Your task to perform on an android device: Search for "asus zenbook" on ebay, select the first entry, add it to the cart, then select checkout. Image 0: 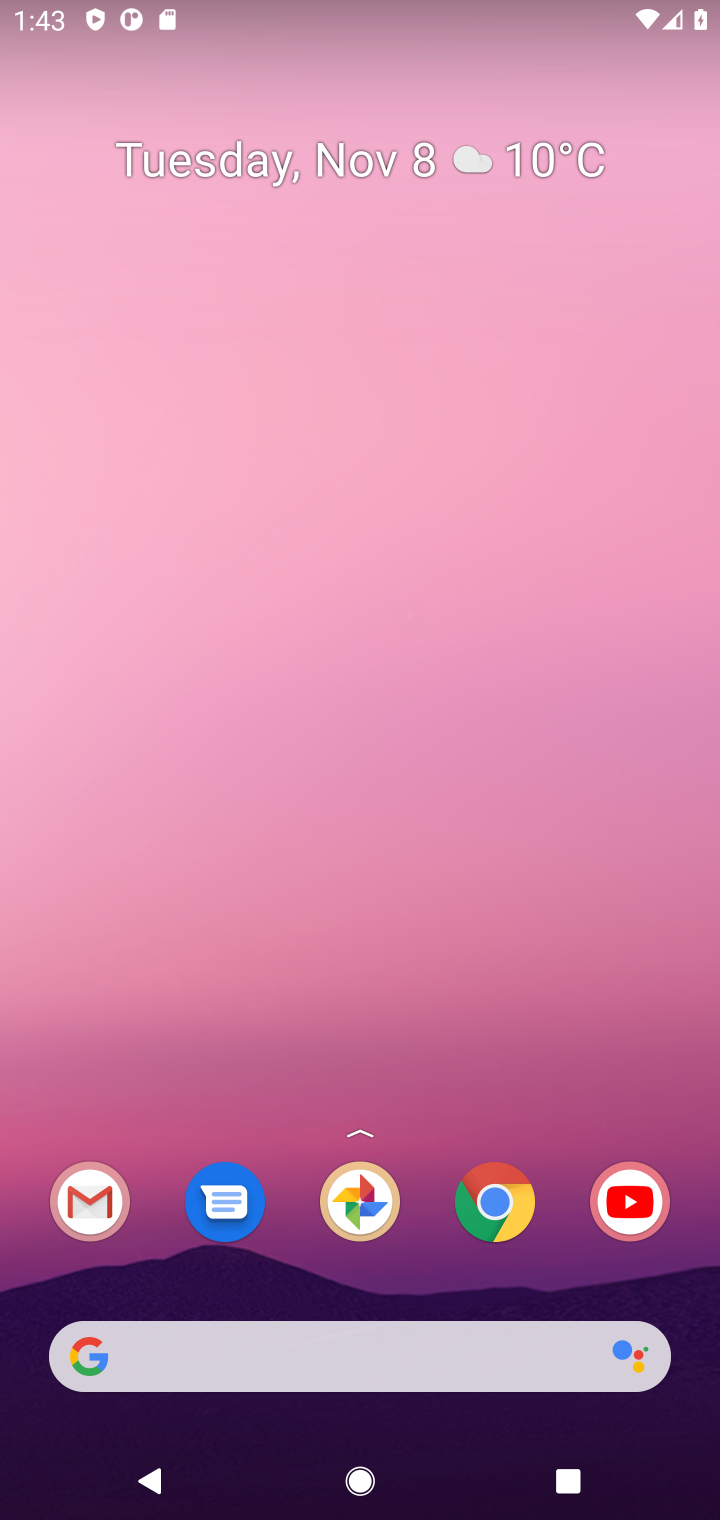
Step 0: drag from (326, 1310) to (383, 789)
Your task to perform on an android device: Search for "asus zenbook" on ebay, select the first entry, add it to the cart, then select checkout. Image 1: 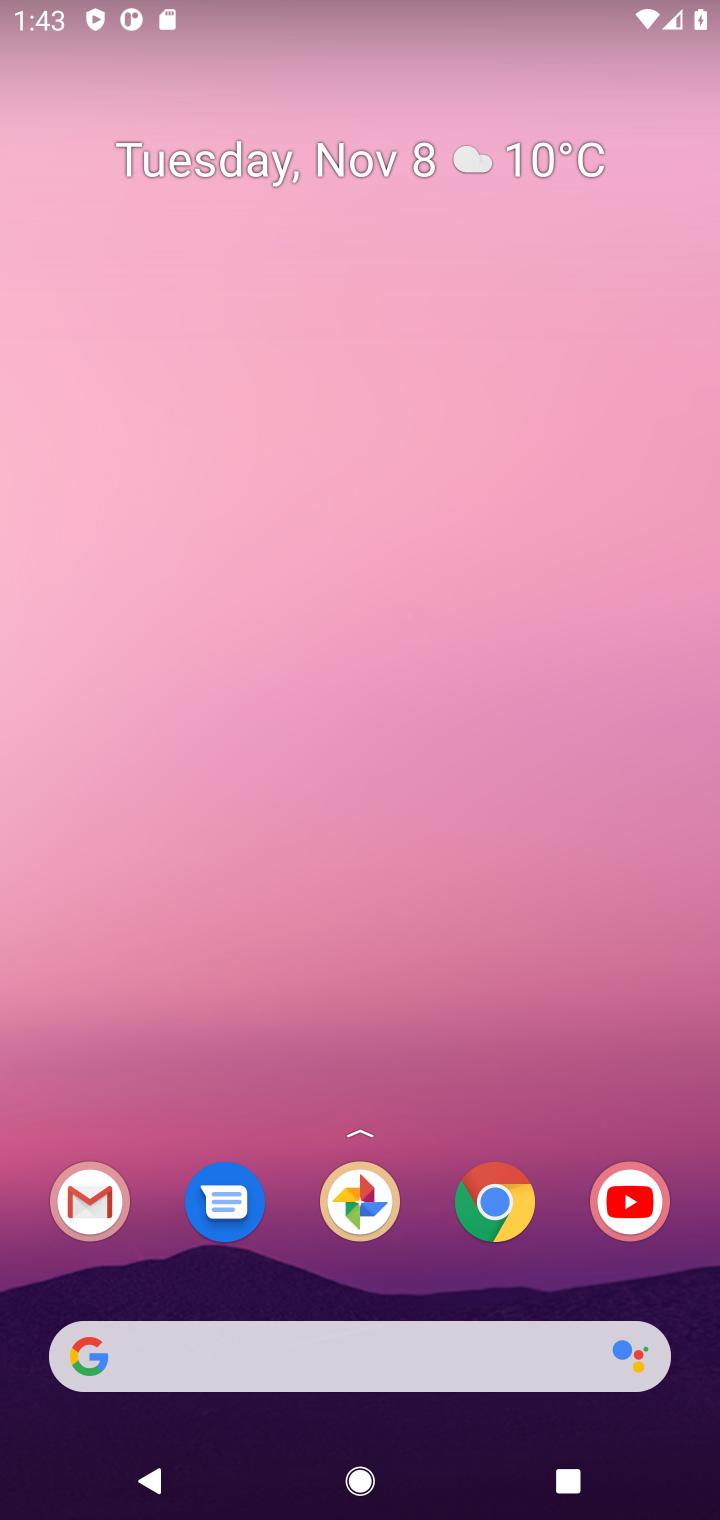
Step 1: drag from (324, 1262) to (381, 611)
Your task to perform on an android device: Search for "asus zenbook" on ebay, select the first entry, add it to the cart, then select checkout. Image 2: 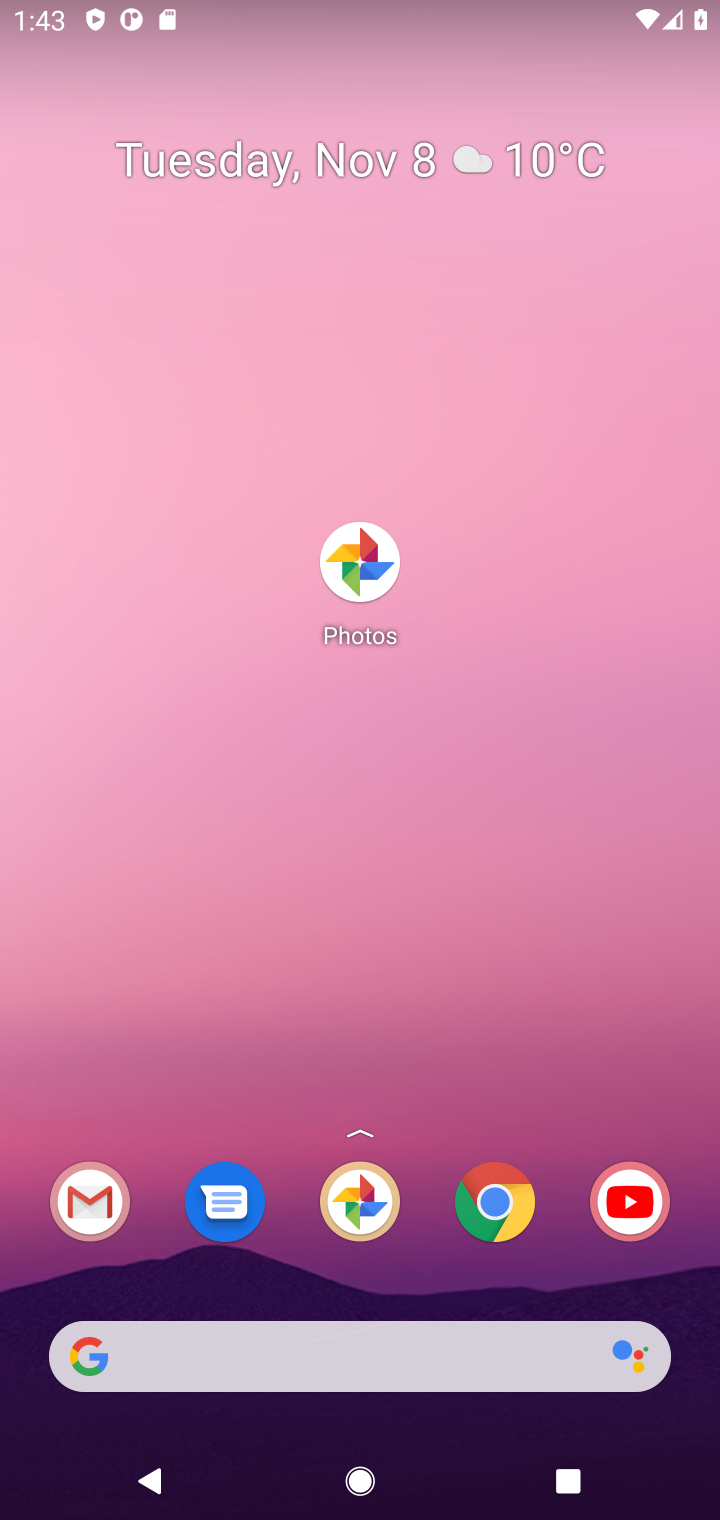
Step 2: drag from (289, 1302) to (289, 701)
Your task to perform on an android device: Search for "asus zenbook" on ebay, select the first entry, add it to the cart, then select checkout. Image 3: 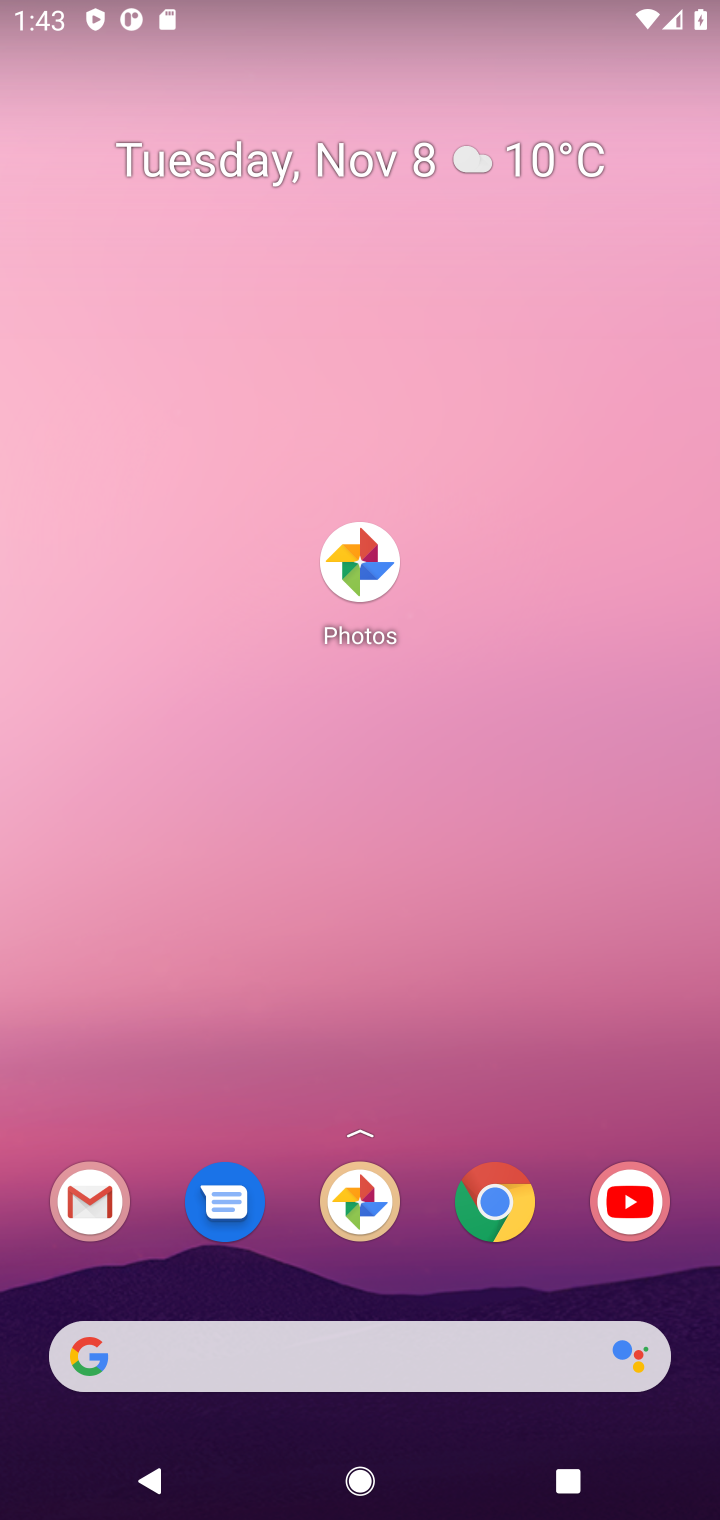
Step 3: drag from (290, 1272) to (214, 453)
Your task to perform on an android device: Search for "asus zenbook" on ebay, select the first entry, add it to the cart, then select checkout. Image 4: 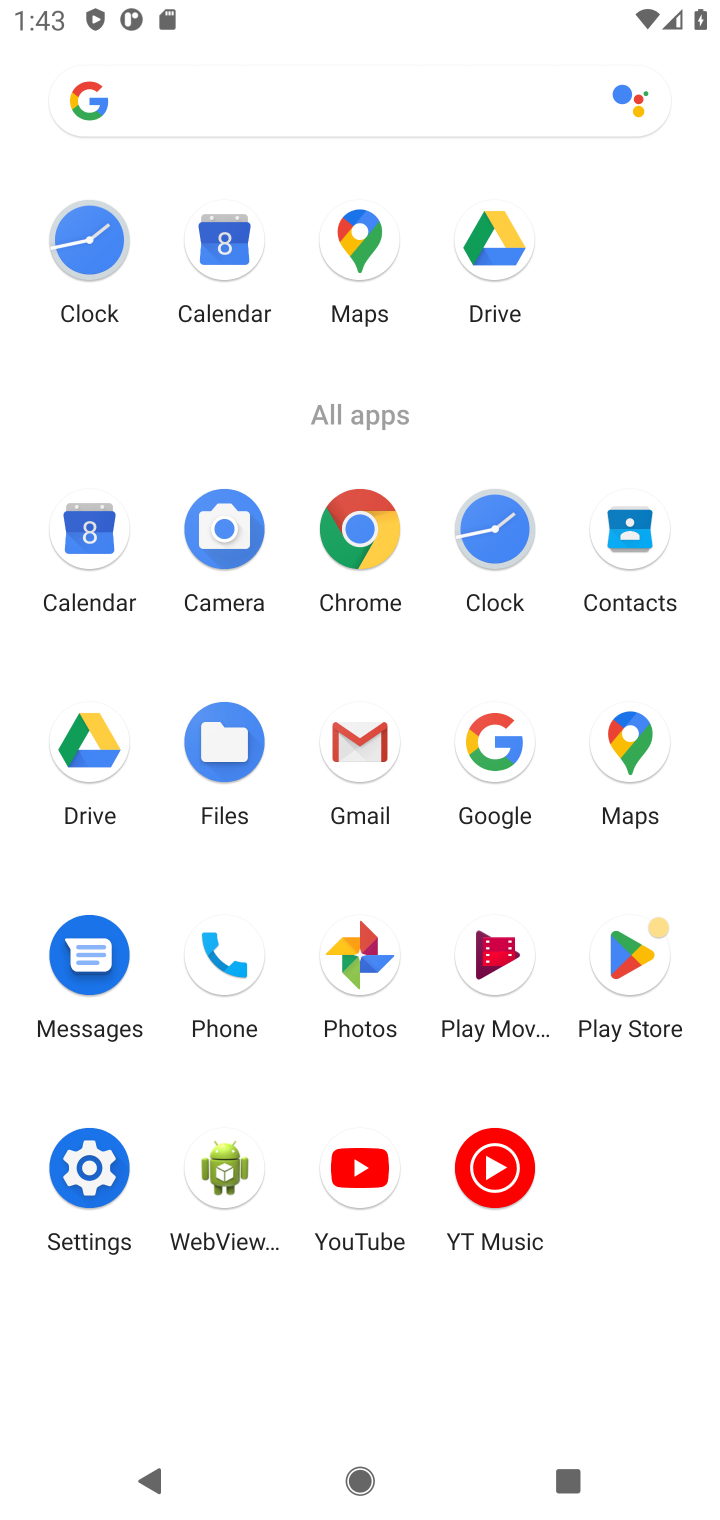
Step 4: click (480, 775)
Your task to perform on an android device: Search for "asus zenbook" on ebay, select the first entry, add it to the cart, then select checkout. Image 5: 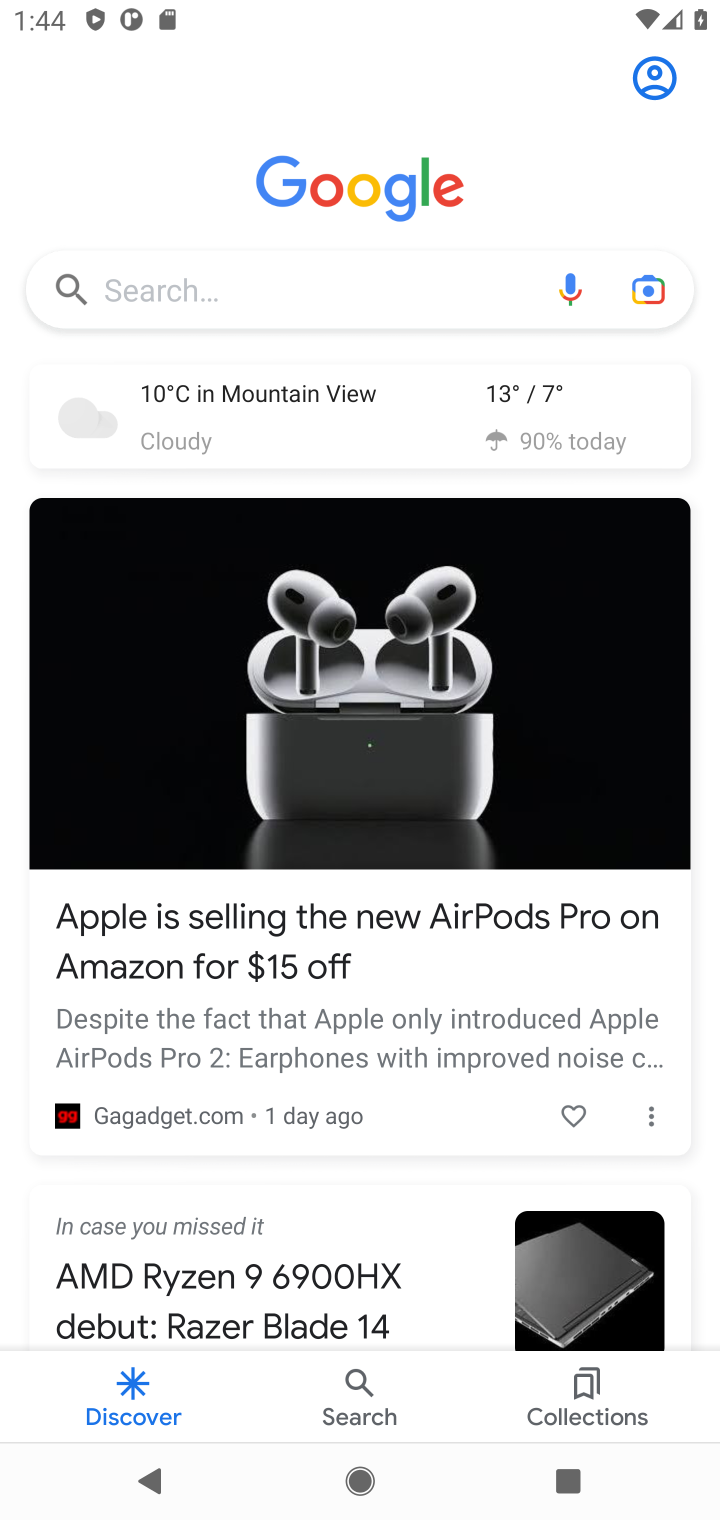
Step 5: click (296, 313)
Your task to perform on an android device: Search for "asus zenbook" on ebay, select the first entry, add it to the cart, then select checkout. Image 6: 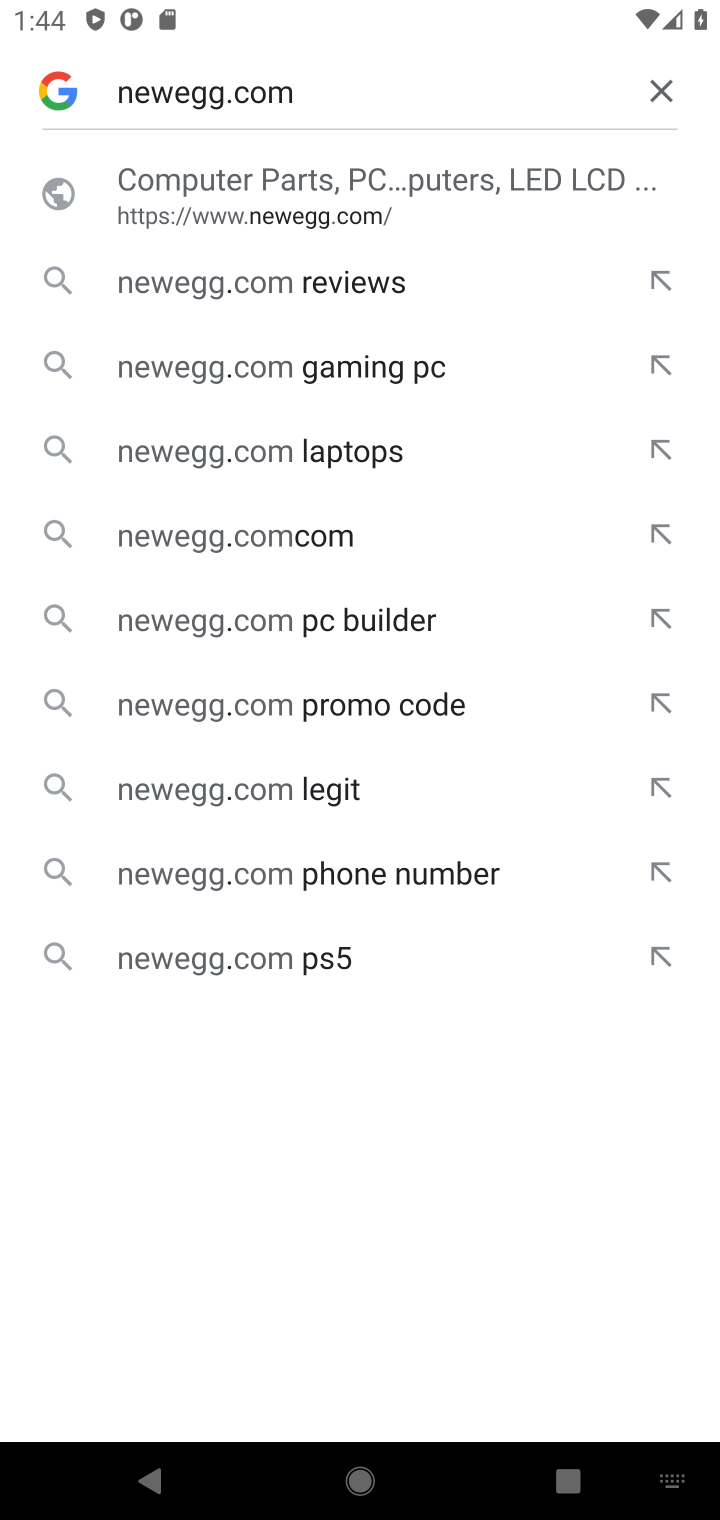
Step 6: click (664, 94)
Your task to perform on an android device: Search for "asus zenbook" on ebay, select the first entry, add it to the cart, then select checkout. Image 7: 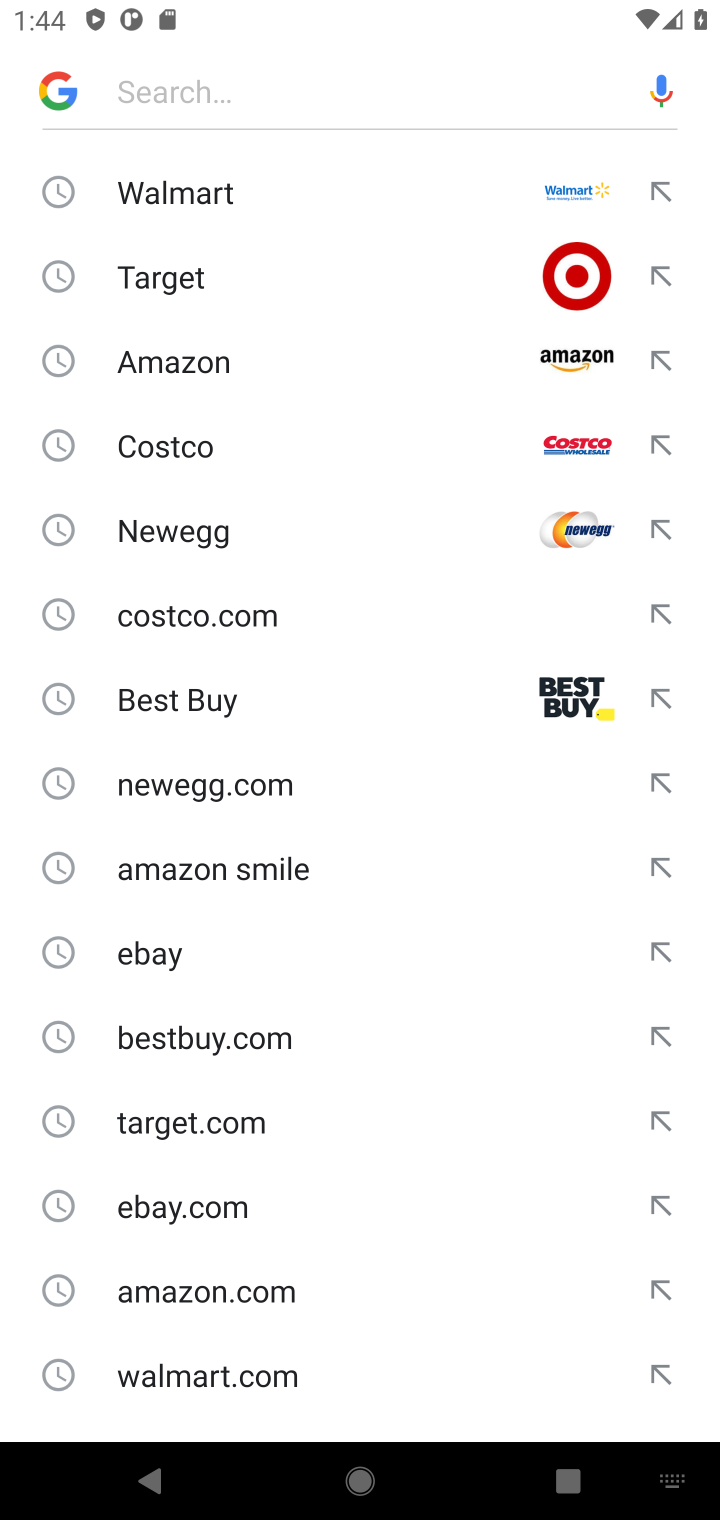
Step 7: type "ebay"
Your task to perform on an android device: Search for "asus zenbook" on ebay, select the first entry, add it to the cart, then select checkout. Image 8: 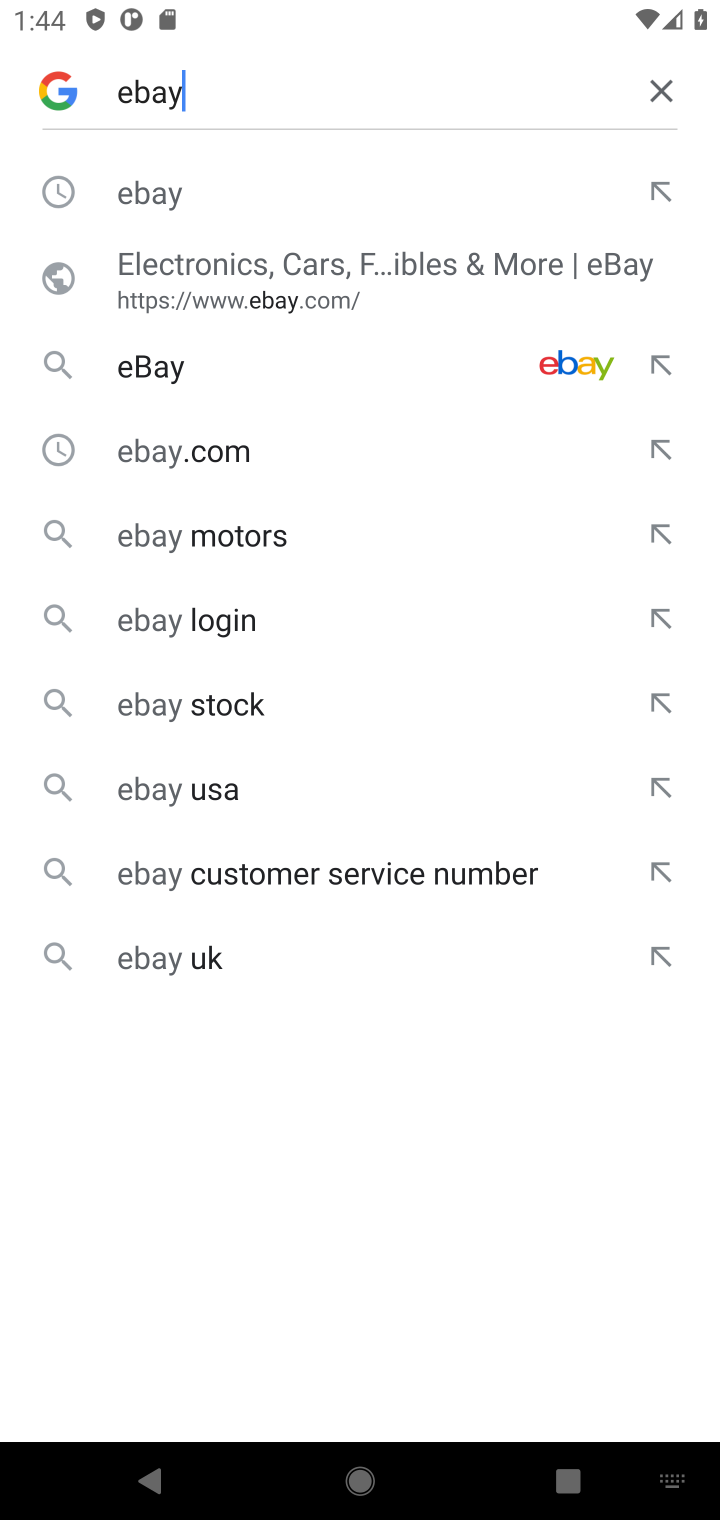
Step 8: click (115, 180)
Your task to perform on an android device: Search for "asus zenbook" on ebay, select the first entry, add it to the cart, then select checkout. Image 9: 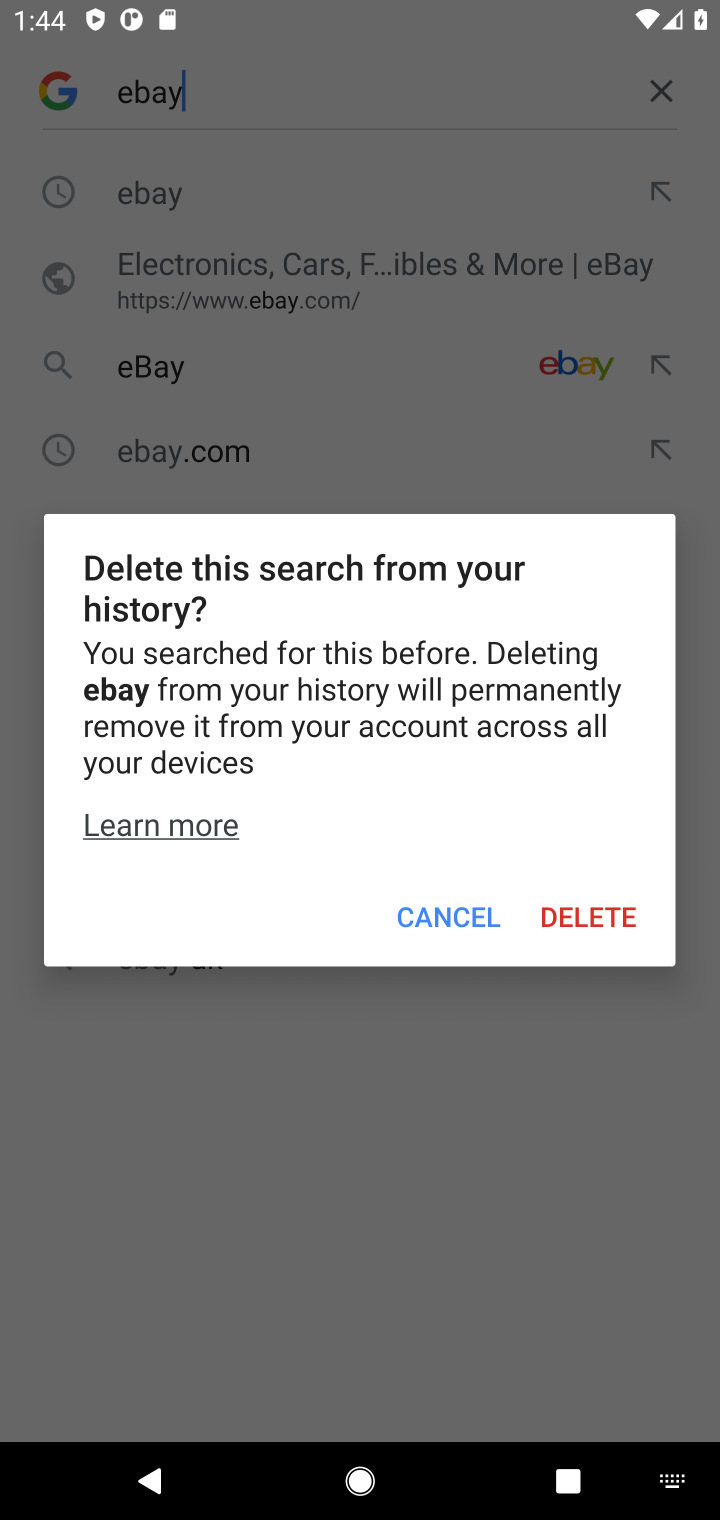
Step 9: click (443, 919)
Your task to perform on an android device: Search for "asus zenbook" on ebay, select the first entry, add it to the cart, then select checkout. Image 10: 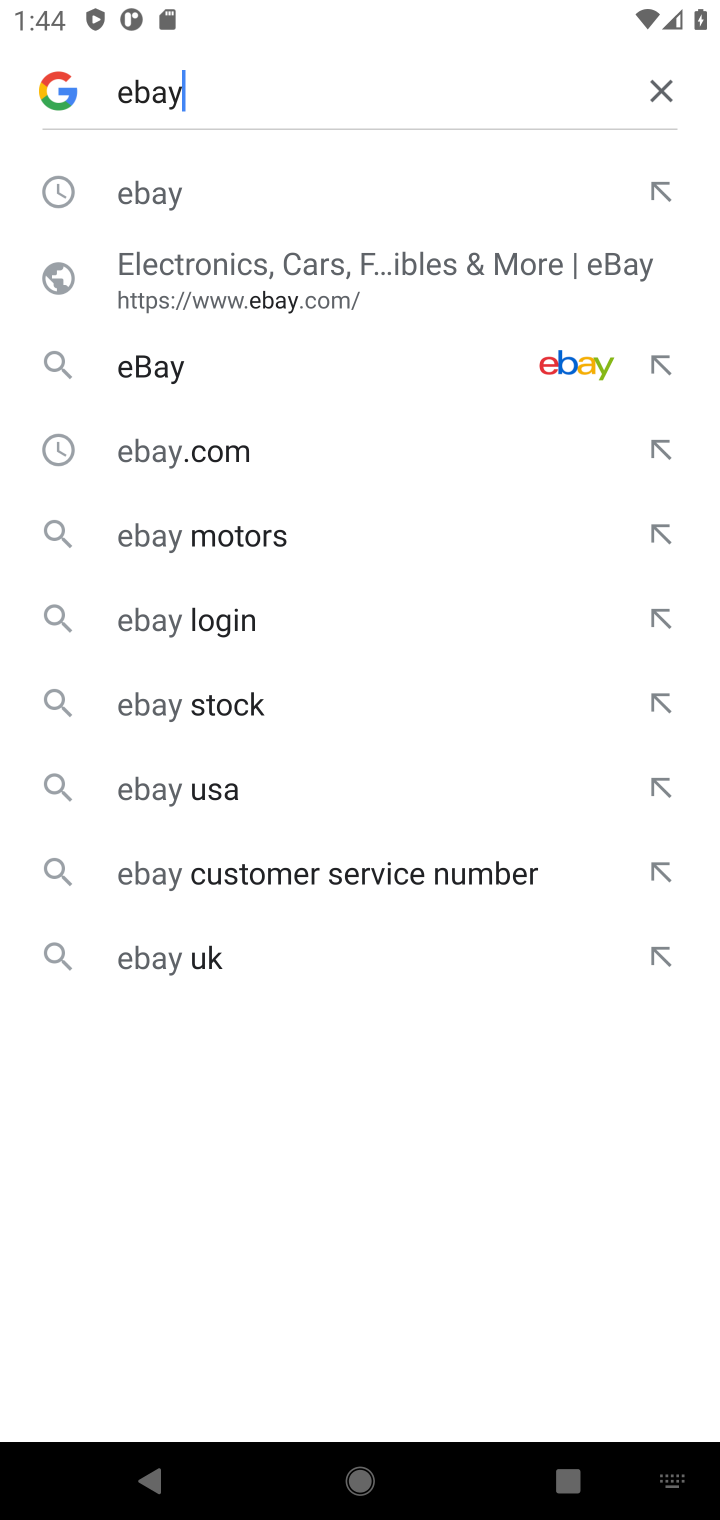
Step 10: click (343, 273)
Your task to perform on an android device: Search for "asus zenbook" on ebay, select the first entry, add it to the cart, then select checkout. Image 11: 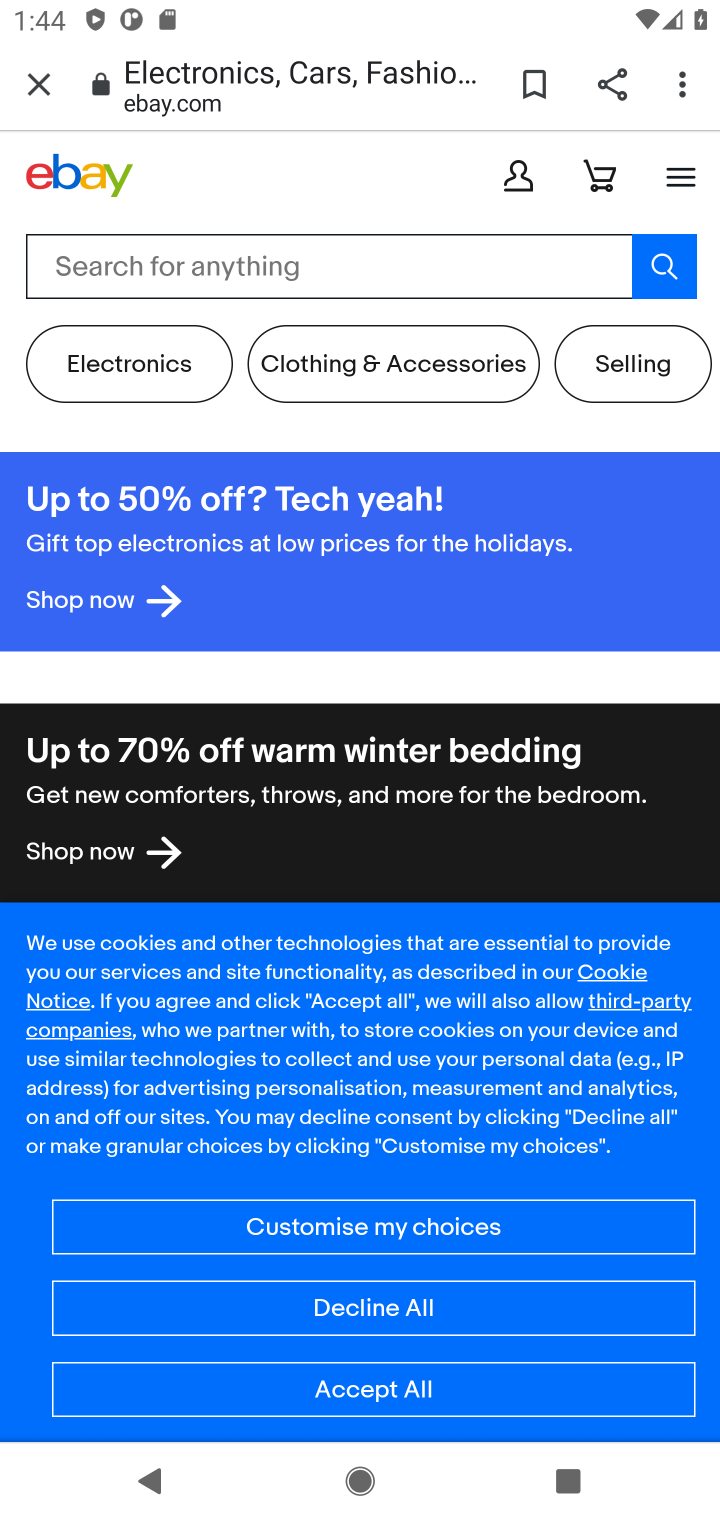
Step 11: click (313, 259)
Your task to perform on an android device: Search for "asus zenbook" on ebay, select the first entry, add it to the cart, then select checkout. Image 12: 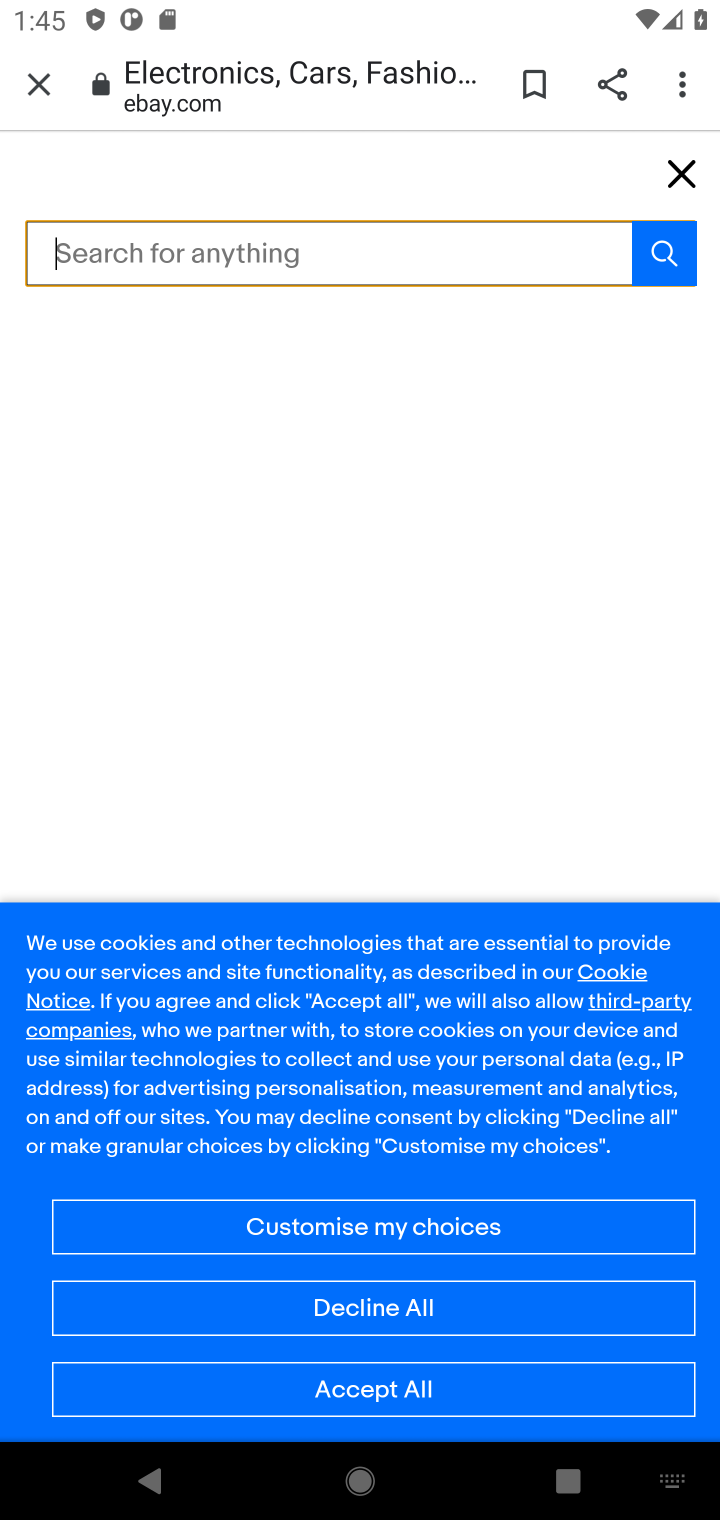
Step 12: type "asus zenbook"
Your task to perform on an android device: Search for "asus zenbook" on ebay, select the first entry, add it to the cart, then select checkout. Image 13: 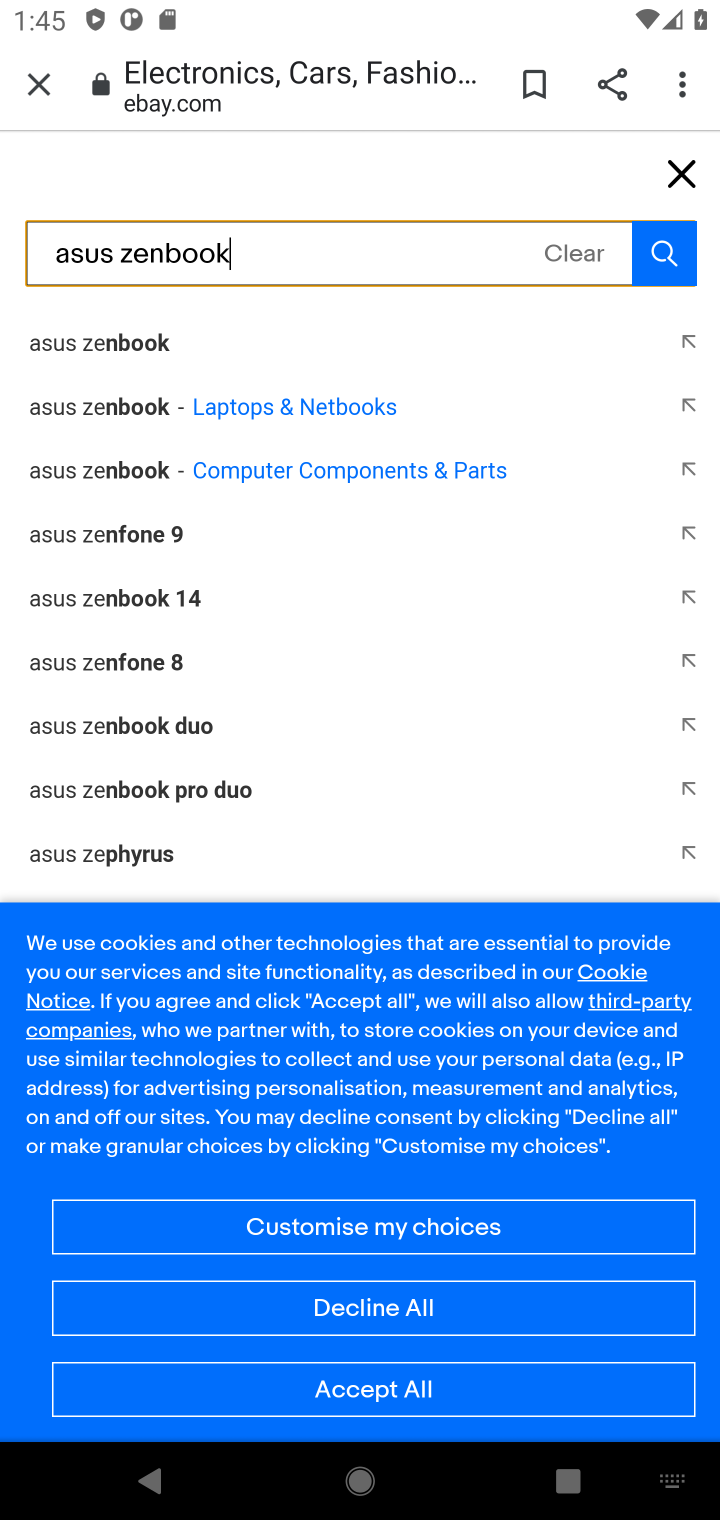
Step 13: click (120, 328)
Your task to perform on an android device: Search for "asus zenbook" on ebay, select the first entry, add it to the cart, then select checkout. Image 14: 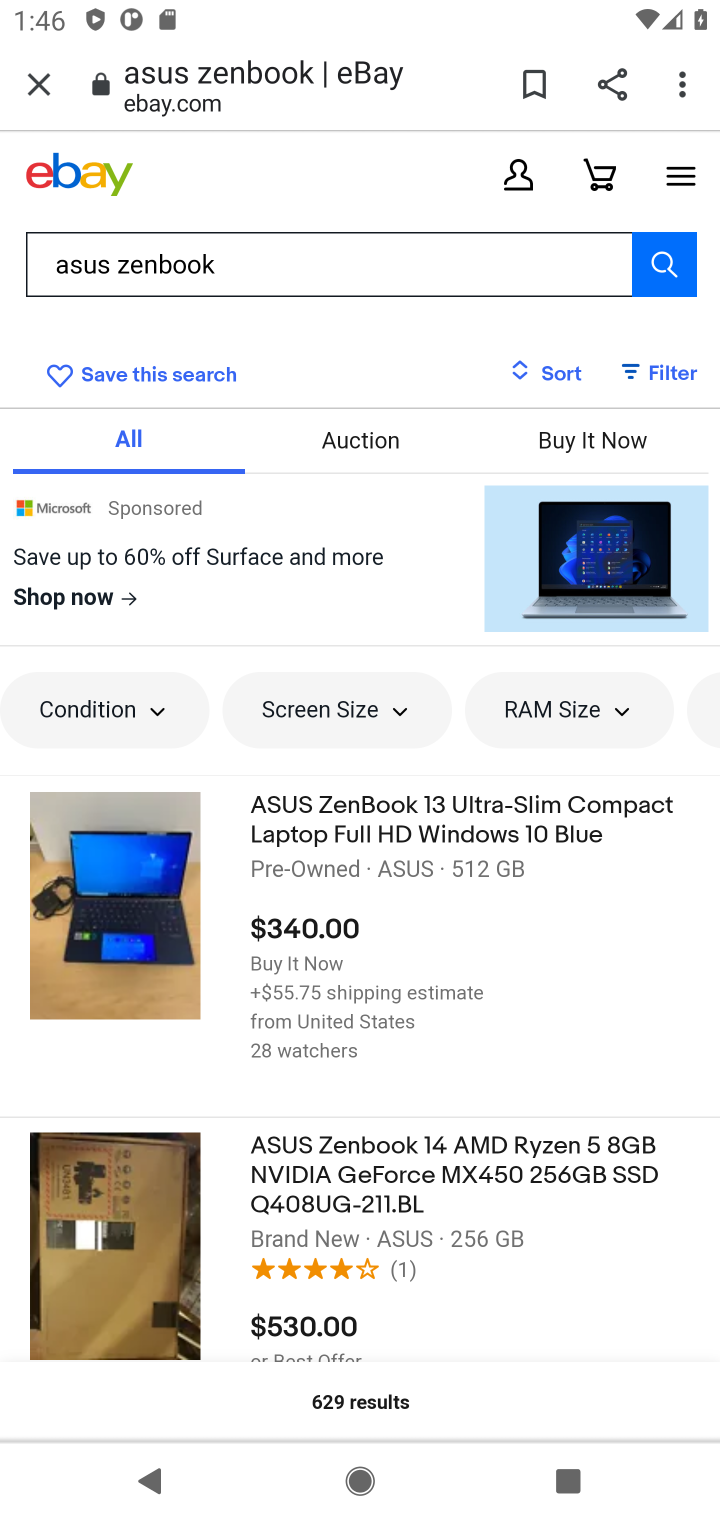
Step 14: click (156, 851)
Your task to perform on an android device: Search for "asus zenbook" on ebay, select the first entry, add it to the cart, then select checkout. Image 15: 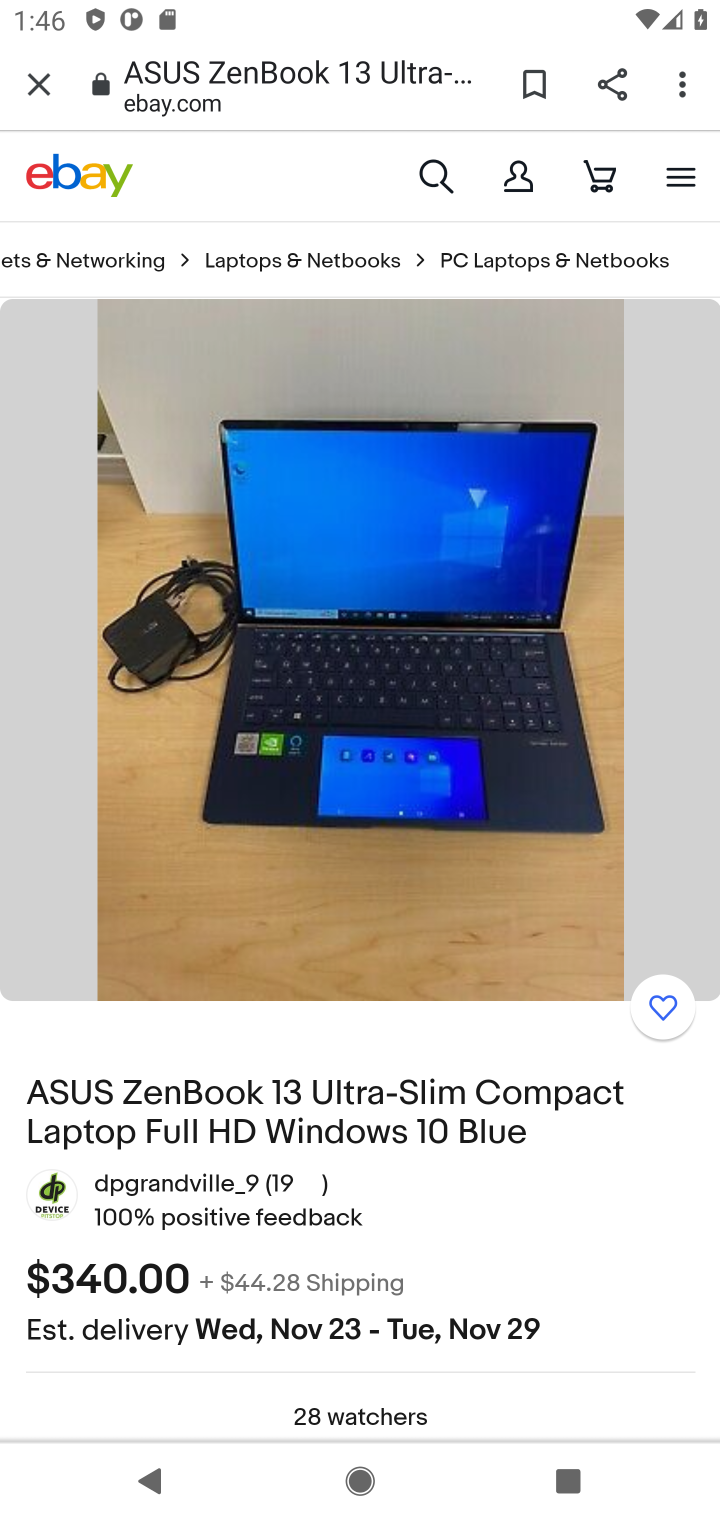
Step 15: drag from (455, 1136) to (418, 756)
Your task to perform on an android device: Search for "asus zenbook" on ebay, select the first entry, add it to the cart, then select checkout. Image 16: 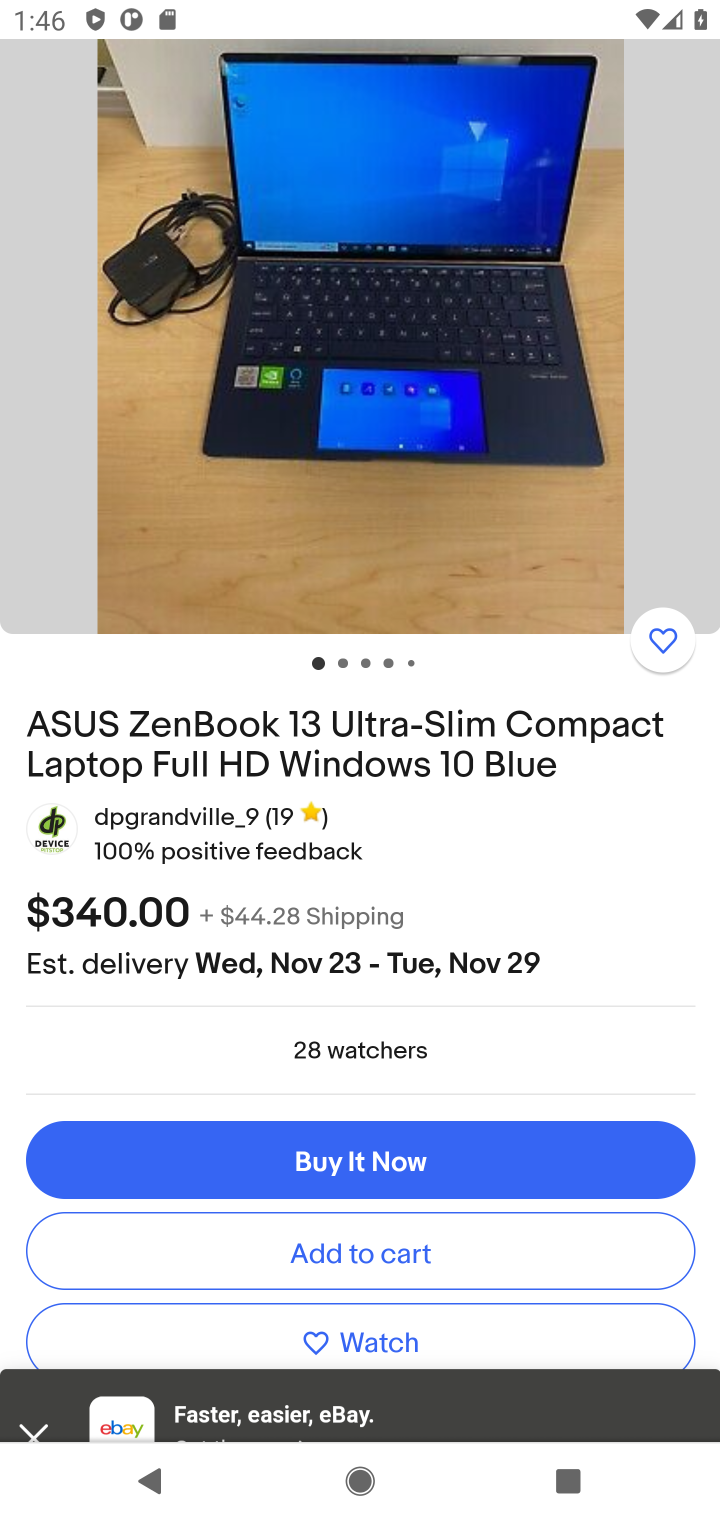
Step 16: click (410, 1251)
Your task to perform on an android device: Search for "asus zenbook" on ebay, select the first entry, add it to the cart, then select checkout. Image 17: 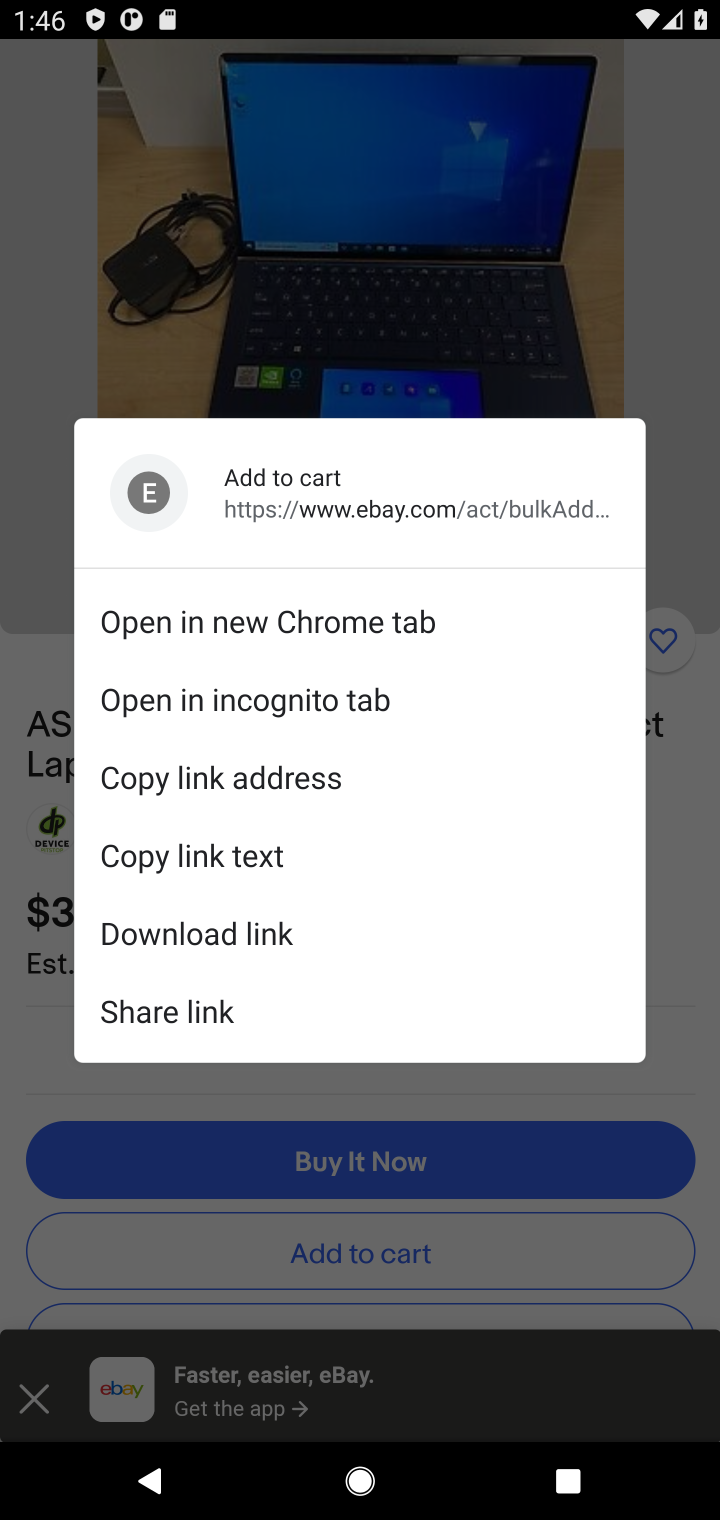
Step 17: click (652, 1239)
Your task to perform on an android device: Search for "asus zenbook" on ebay, select the first entry, add it to the cart, then select checkout. Image 18: 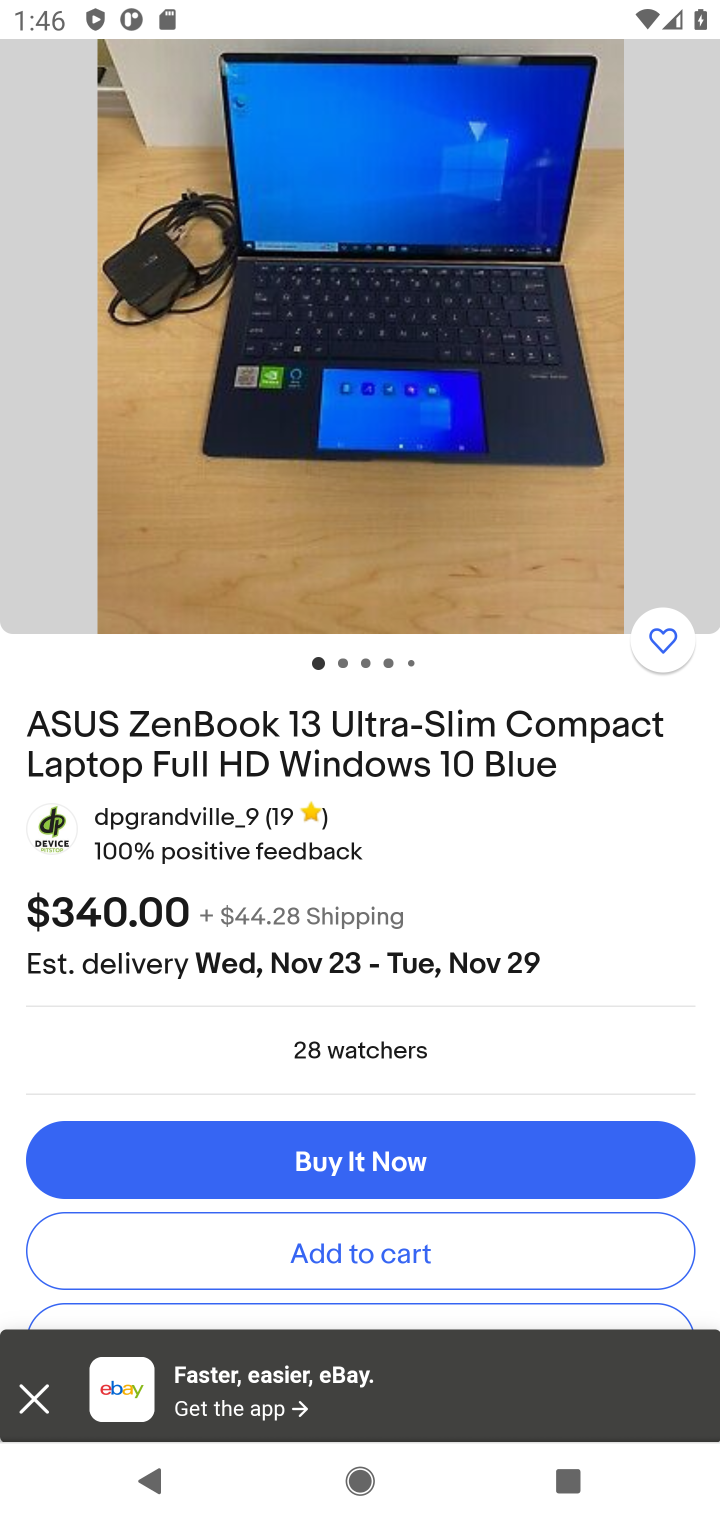
Step 18: click (599, 1246)
Your task to perform on an android device: Search for "asus zenbook" on ebay, select the first entry, add it to the cart, then select checkout. Image 19: 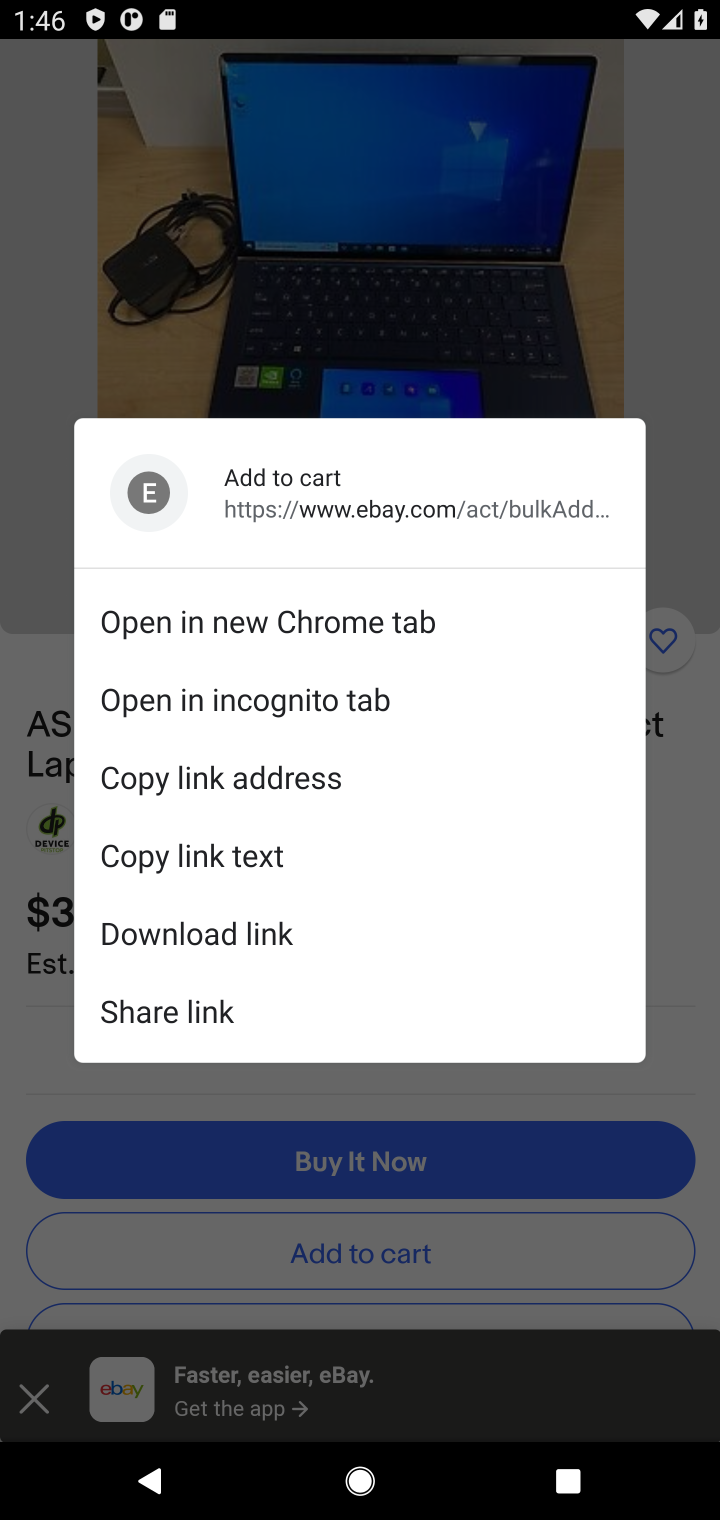
Step 19: task complete